Your task to perform on an android device: Open CNN.com Image 0: 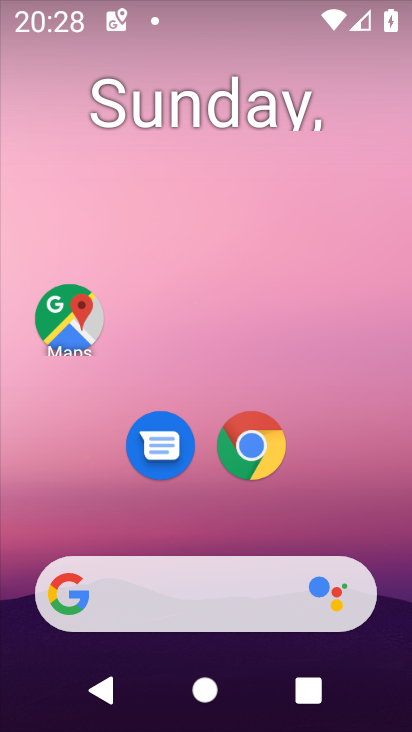
Step 0: click (260, 452)
Your task to perform on an android device: Open CNN.com Image 1: 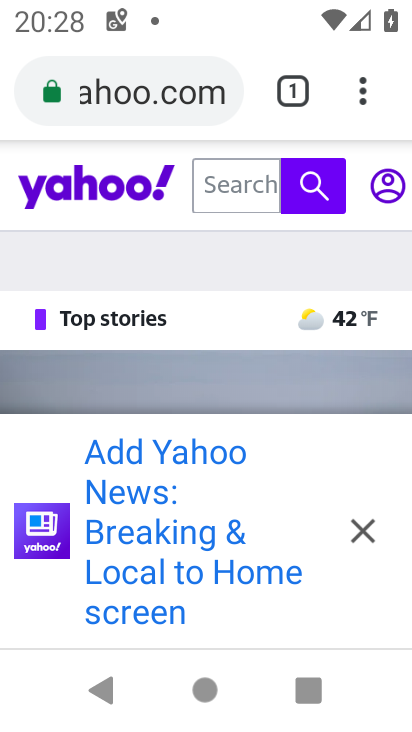
Step 1: click (290, 93)
Your task to perform on an android device: Open CNN.com Image 2: 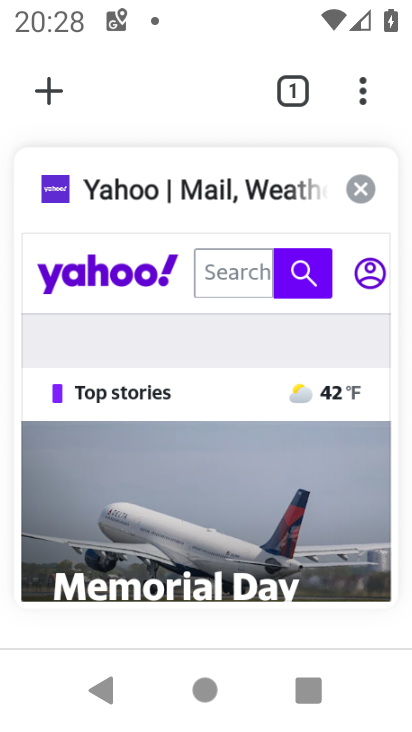
Step 2: click (362, 193)
Your task to perform on an android device: Open CNN.com Image 3: 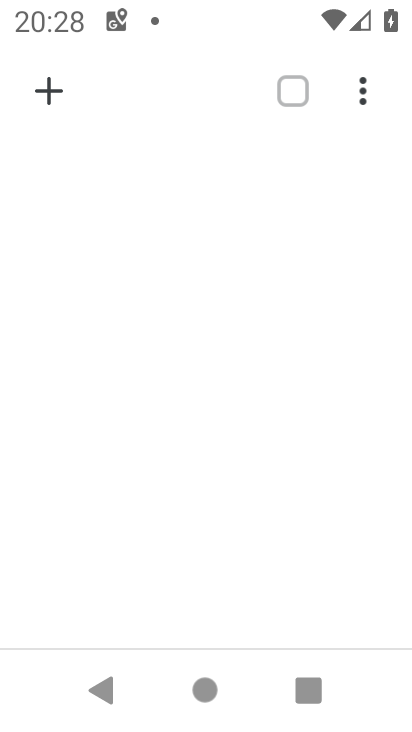
Step 3: click (47, 100)
Your task to perform on an android device: Open CNN.com Image 4: 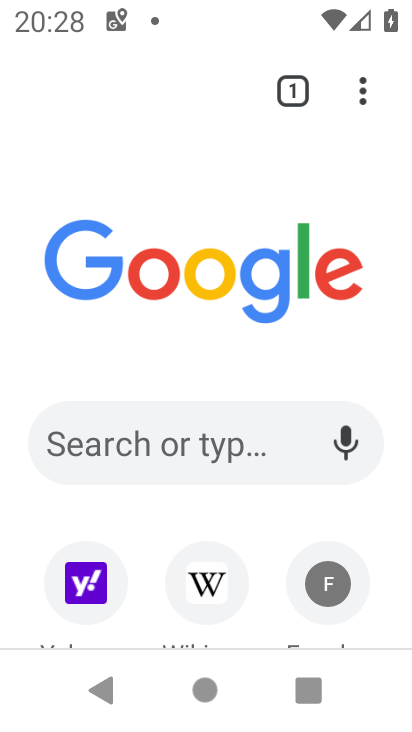
Step 4: drag from (17, 490) to (227, 203)
Your task to perform on an android device: Open CNN.com Image 5: 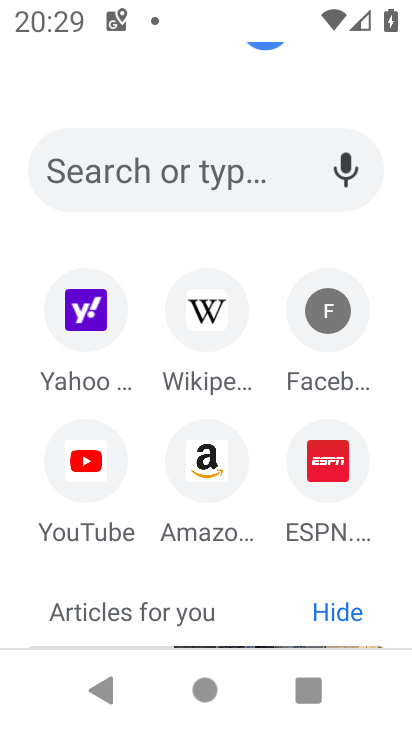
Step 5: click (209, 159)
Your task to perform on an android device: Open CNN.com Image 6: 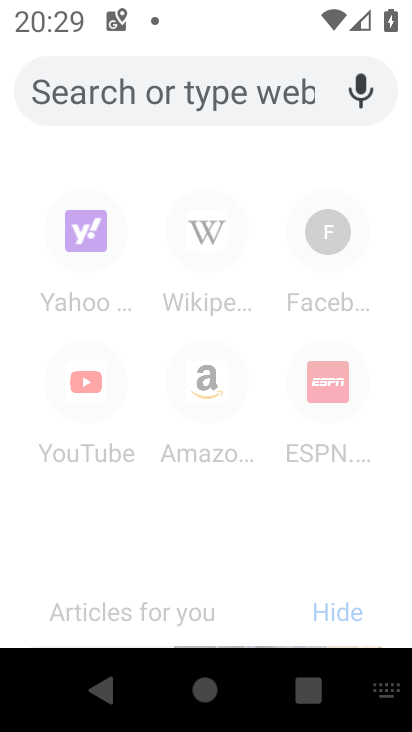
Step 6: type " CNN.com"
Your task to perform on an android device: Open CNN.com Image 7: 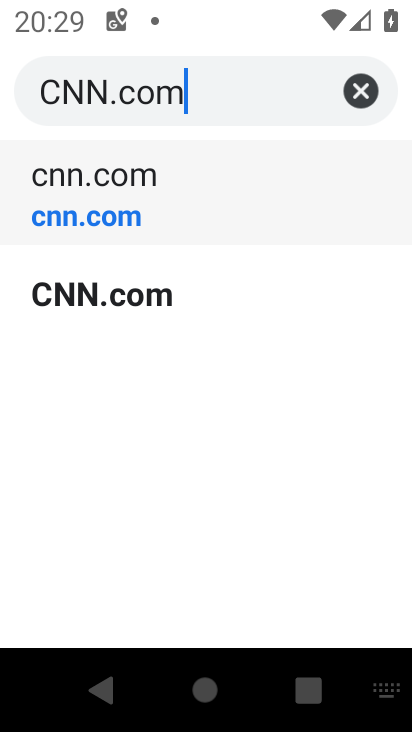
Step 7: type ""
Your task to perform on an android device: Open CNN.com Image 8: 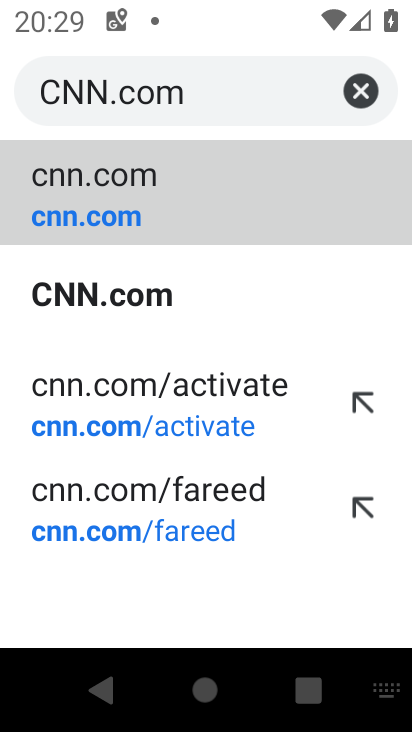
Step 8: click (57, 298)
Your task to perform on an android device: Open CNN.com Image 9: 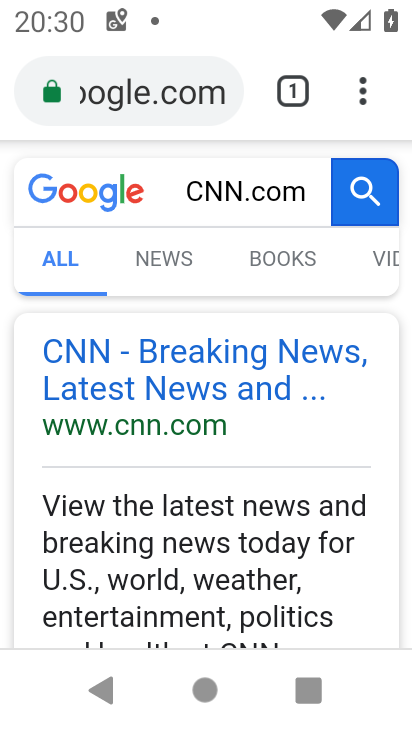
Step 9: task complete